Your task to perform on an android device: open app "Venmo" Image 0: 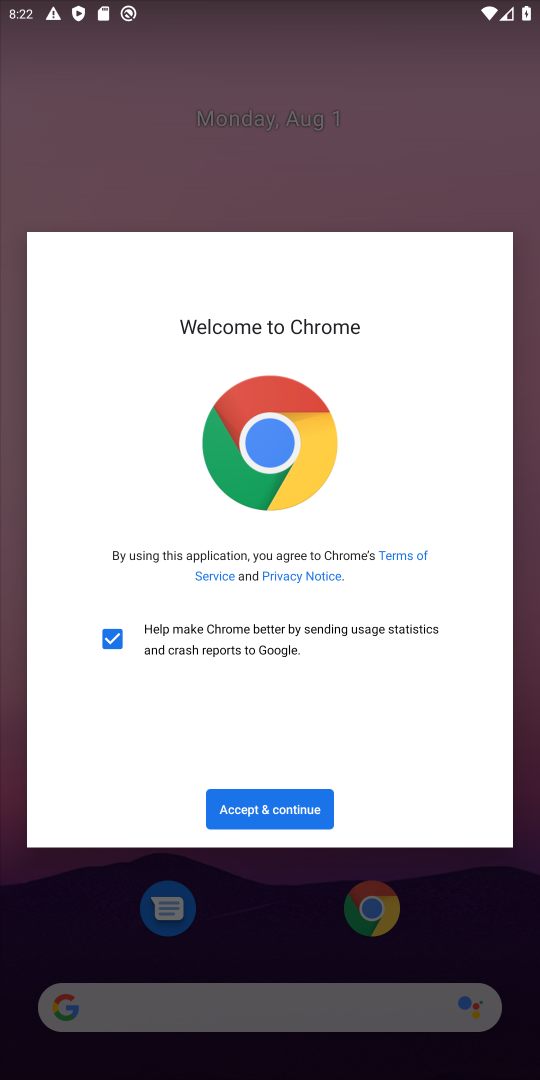
Step 0: press home button
Your task to perform on an android device: open app "Venmo" Image 1: 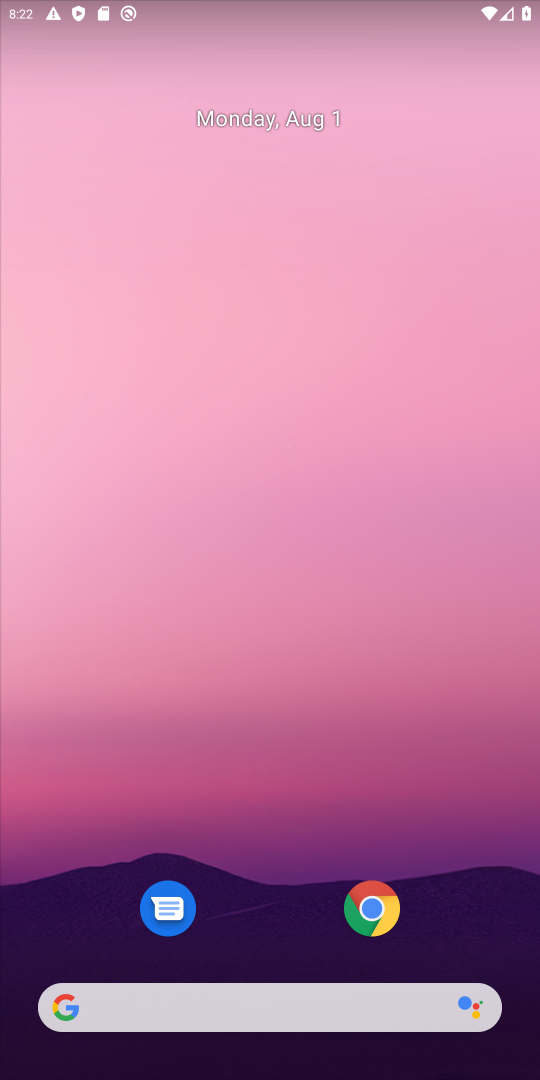
Step 1: drag from (299, 915) to (299, 269)
Your task to perform on an android device: open app "Venmo" Image 2: 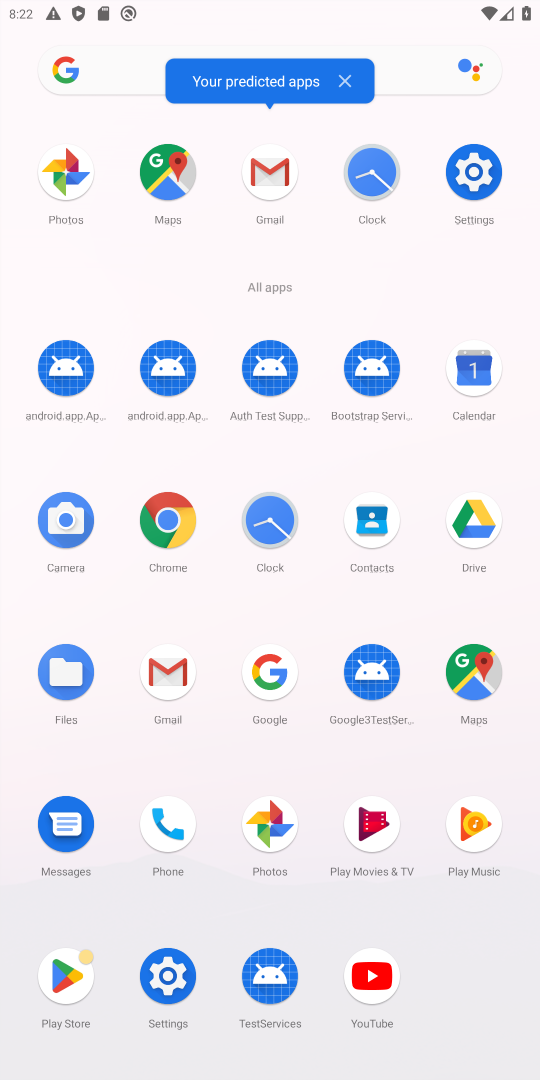
Step 2: click (70, 973)
Your task to perform on an android device: open app "Venmo" Image 3: 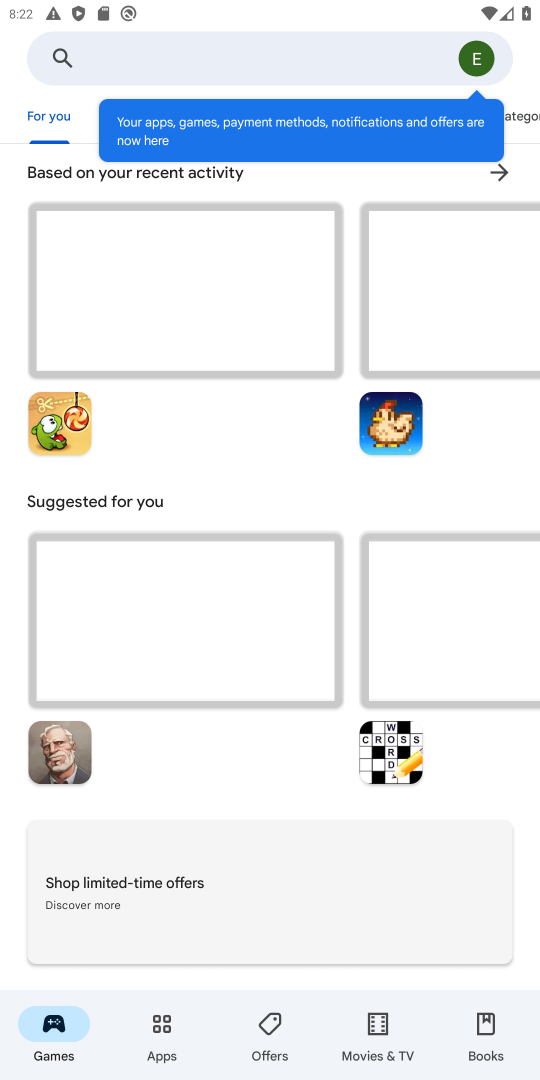
Step 3: click (266, 54)
Your task to perform on an android device: open app "Venmo" Image 4: 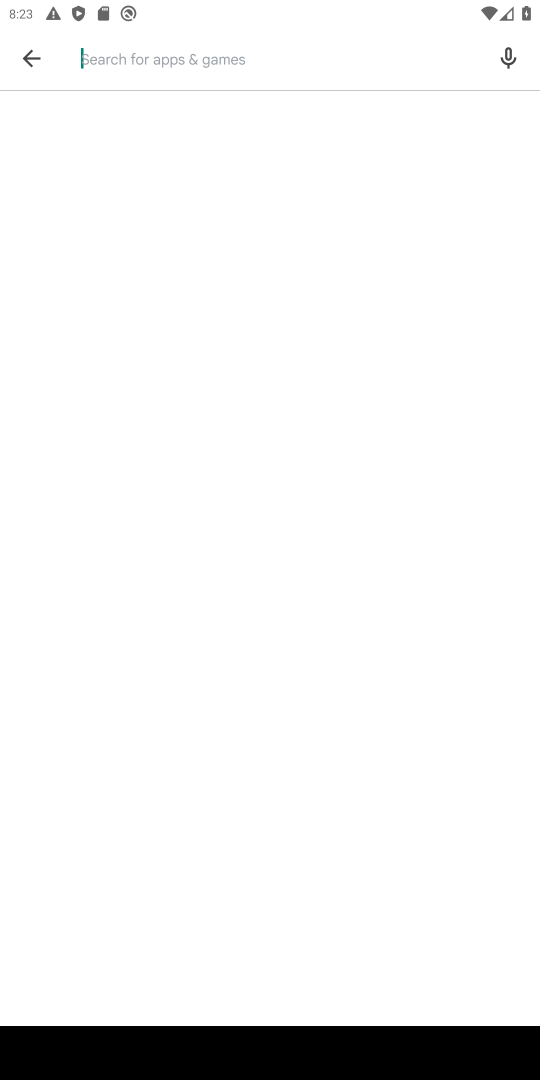
Step 4: type "venmo"
Your task to perform on an android device: open app "Venmo" Image 5: 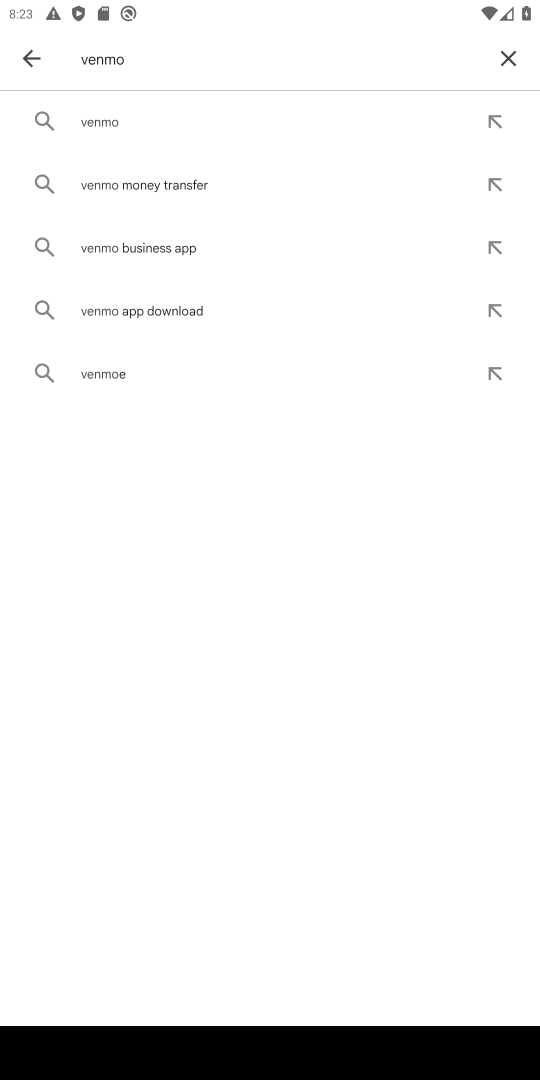
Step 5: click (448, 112)
Your task to perform on an android device: open app "Venmo" Image 6: 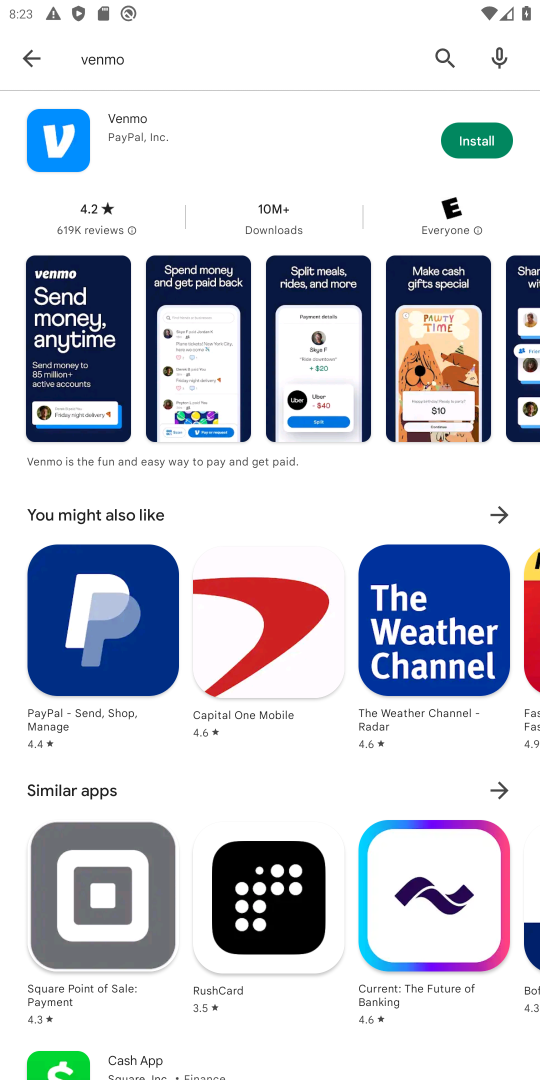
Step 6: click (313, 111)
Your task to perform on an android device: open app "Venmo" Image 7: 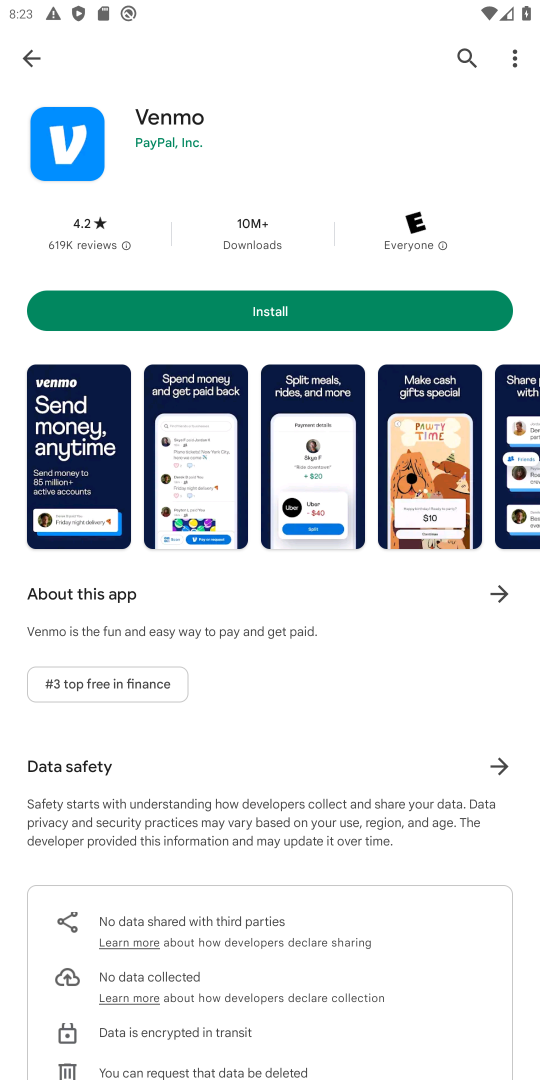
Step 7: task complete